Your task to perform on an android device: turn on the 12-hour format for clock Image 0: 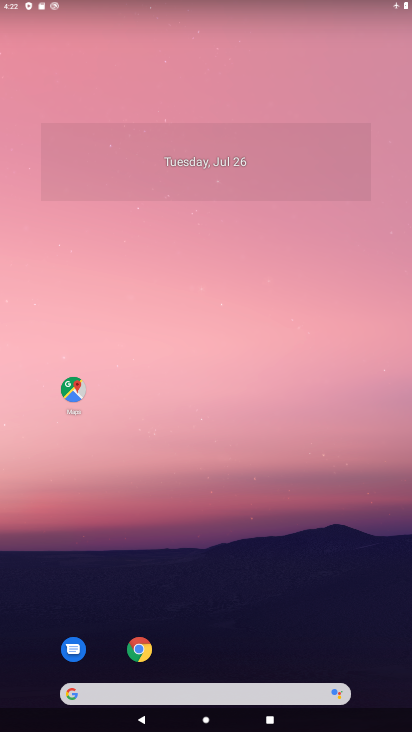
Step 0: drag from (207, 628) to (211, 194)
Your task to perform on an android device: turn on the 12-hour format for clock Image 1: 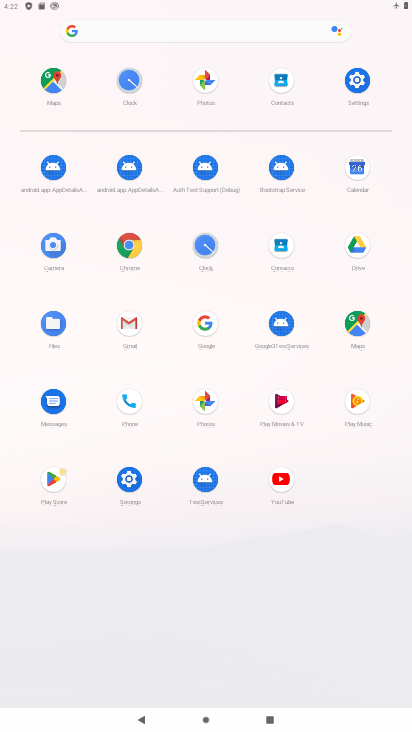
Step 1: click (137, 82)
Your task to perform on an android device: turn on the 12-hour format for clock Image 2: 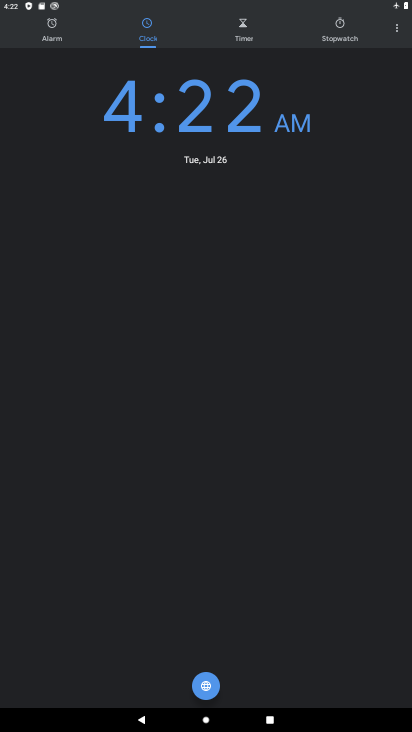
Step 2: click (404, 34)
Your task to perform on an android device: turn on the 12-hour format for clock Image 3: 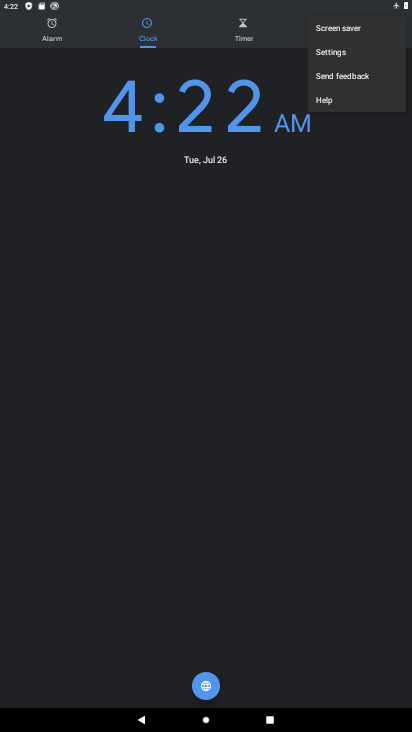
Step 3: click (364, 57)
Your task to perform on an android device: turn on the 12-hour format for clock Image 4: 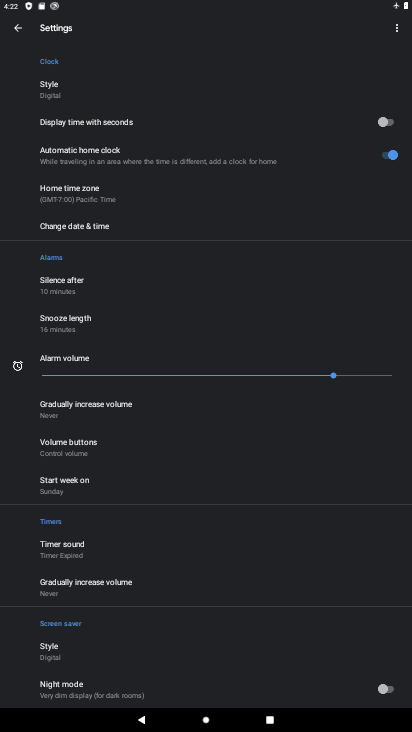
Step 4: click (116, 232)
Your task to perform on an android device: turn on the 12-hour format for clock Image 5: 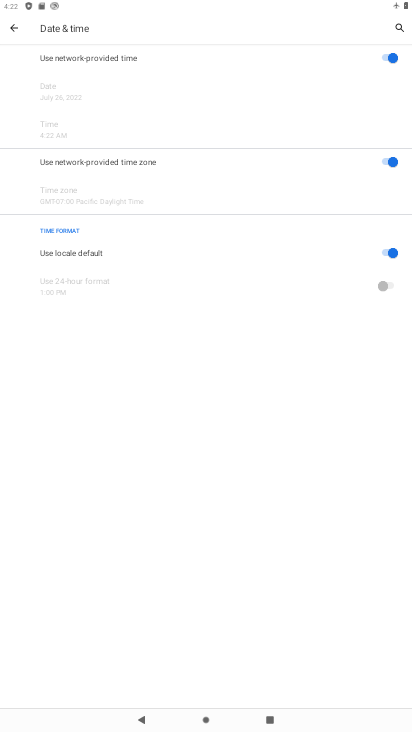
Step 5: task complete